Your task to perform on an android device: toggle show notifications on the lock screen Image 0: 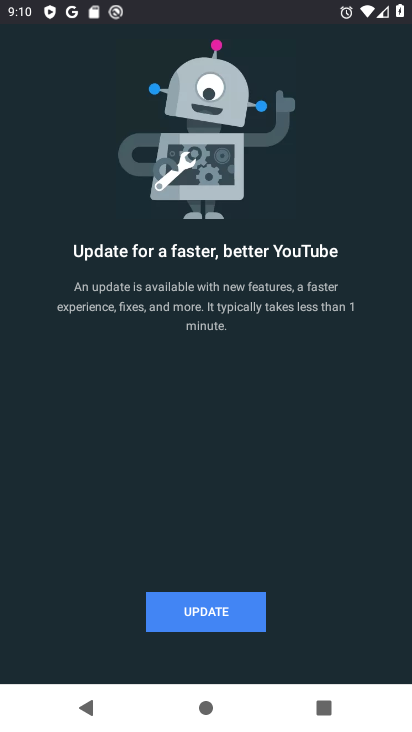
Step 0: press home button
Your task to perform on an android device: toggle show notifications on the lock screen Image 1: 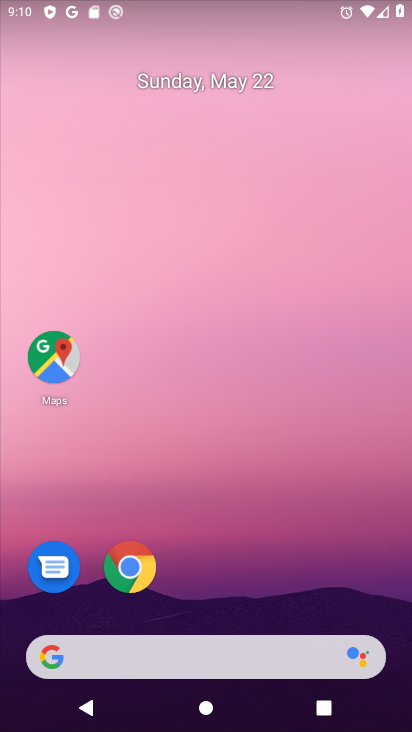
Step 1: drag from (198, 604) to (369, 178)
Your task to perform on an android device: toggle show notifications on the lock screen Image 2: 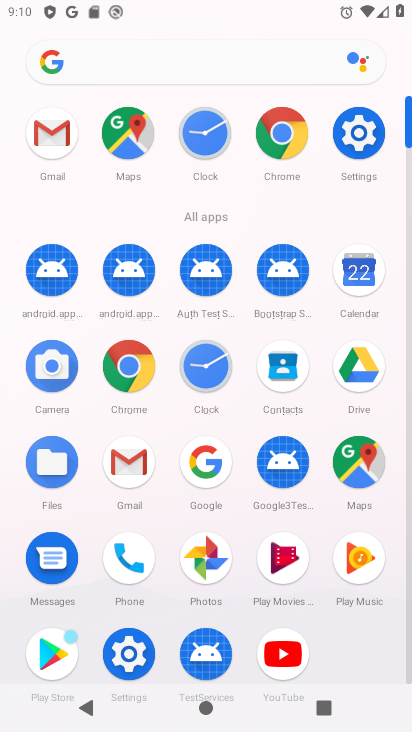
Step 2: click (363, 145)
Your task to perform on an android device: toggle show notifications on the lock screen Image 3: 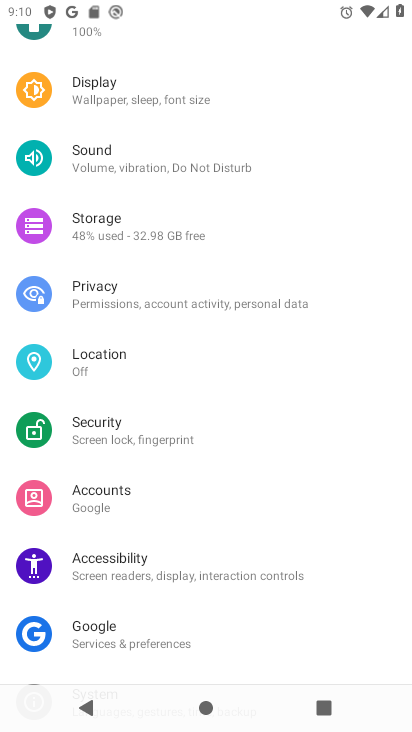
Step 3: drag from (201, 228) to (151, 712)
Your task to perform on an android device: toggle show notifications on the lock screen Image 4: 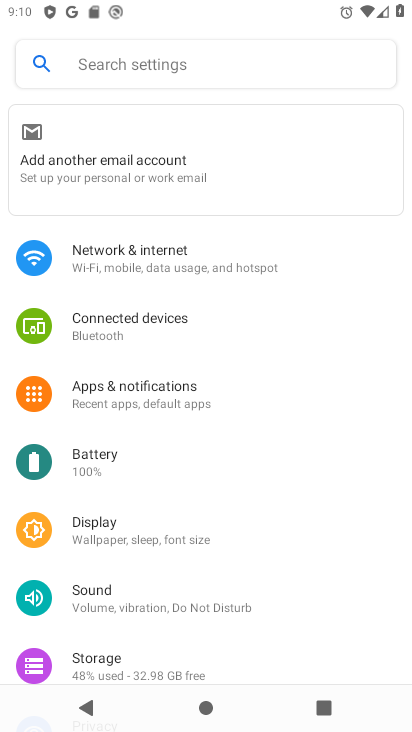
Step 4: click (177, 401)
Your task to perform on an android device: toggle show notifications on the lock screen Image 5: 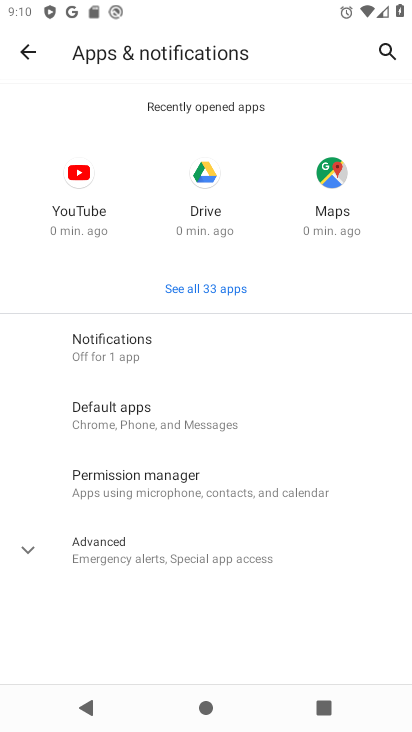
Step 5: click (146, 367)
Your task to perform on an android device: toggle show notifications on the lock screen Image 6: 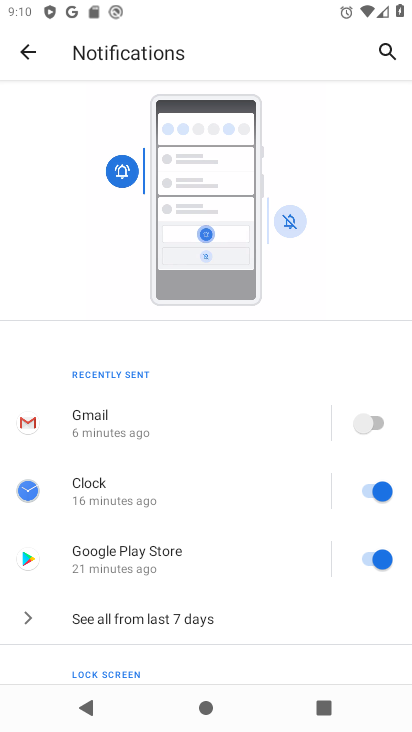
Step 6: drag from (159, 541) to (159, 294)
Your task to perform on an android device: toggle show notifications on the lock screen Image 7: 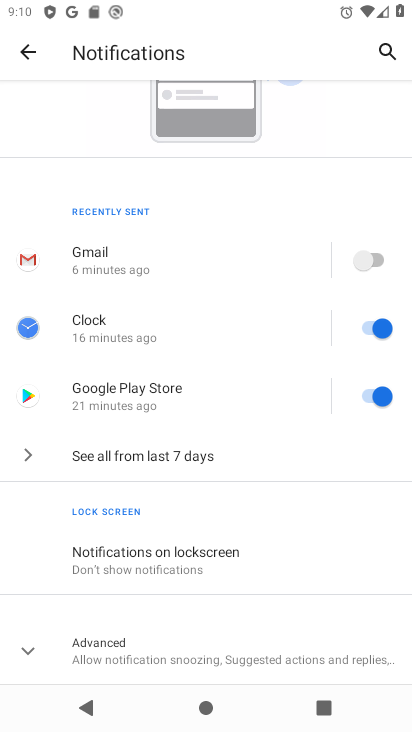
Step 7: click (167, 555)
Your task to perform on an android device: toggle show notifications on the lock screen Image 8: 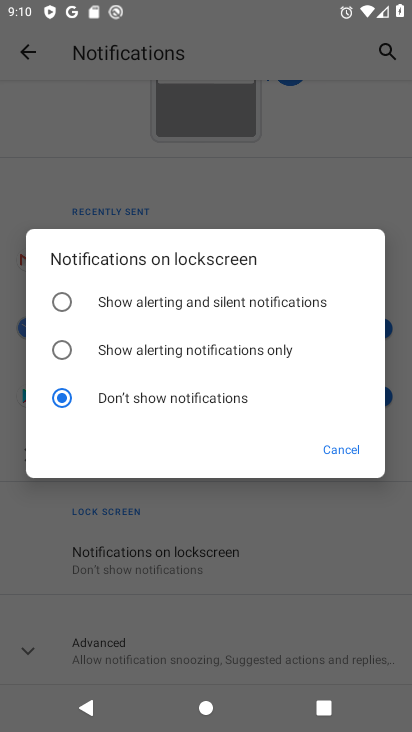
Step 8: click (115, 306)
Your task to perform on an android device: toggle show notifications on the lock screen Image 9: 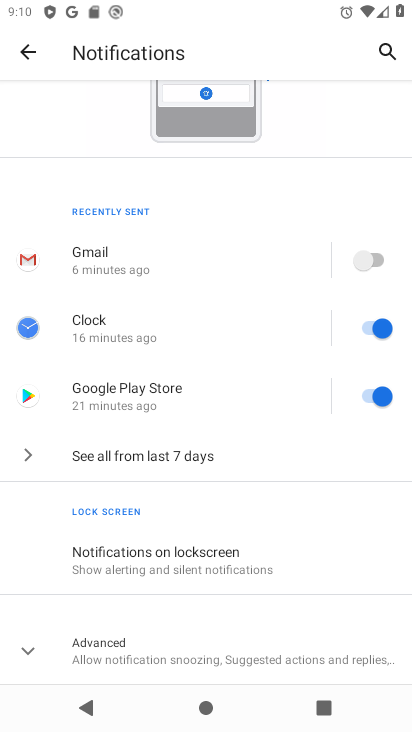
Step 9: task complete